Your task to perform on an android device: stop showing notifications on the lock screen Image 0: 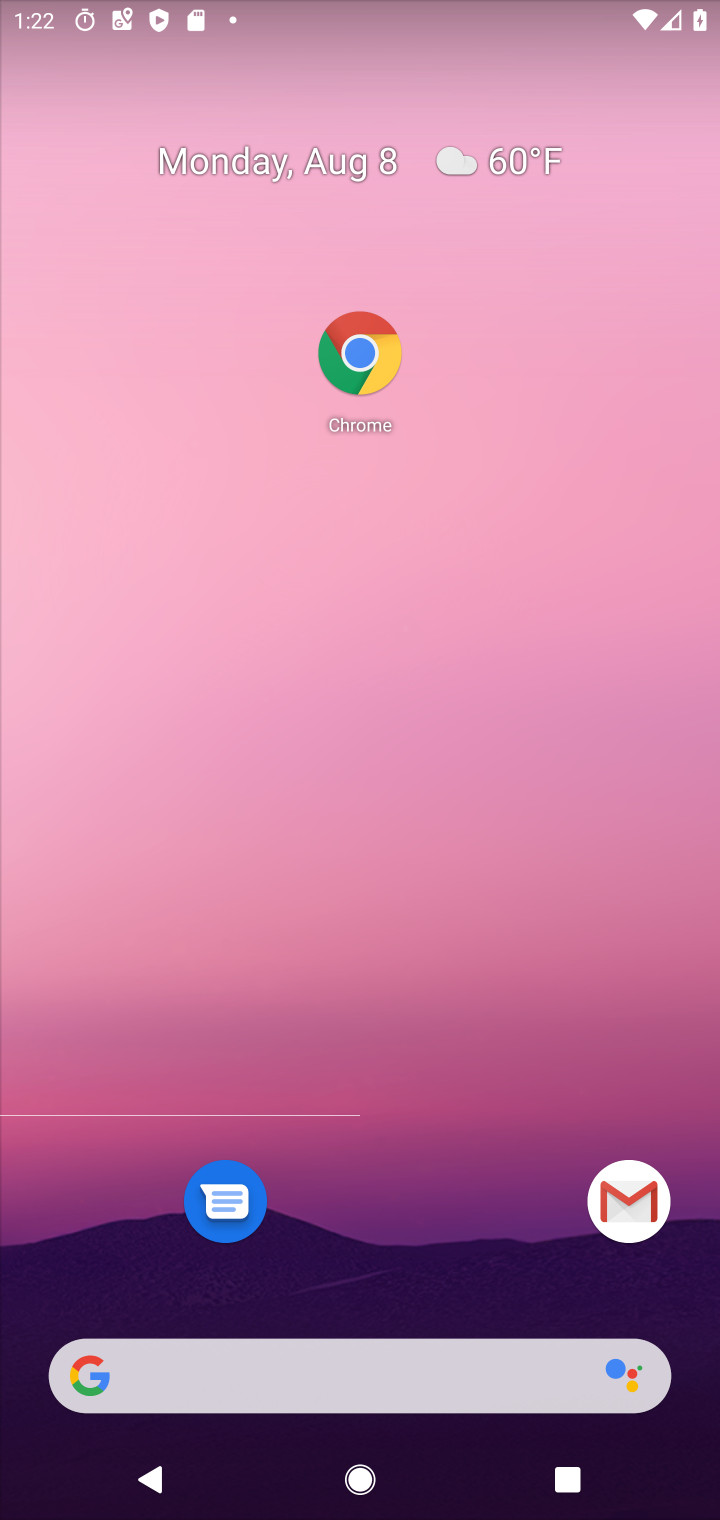
Step 0: press home button
Your task to perform on an android device: stop showing notifications on the lock screen Image 1: 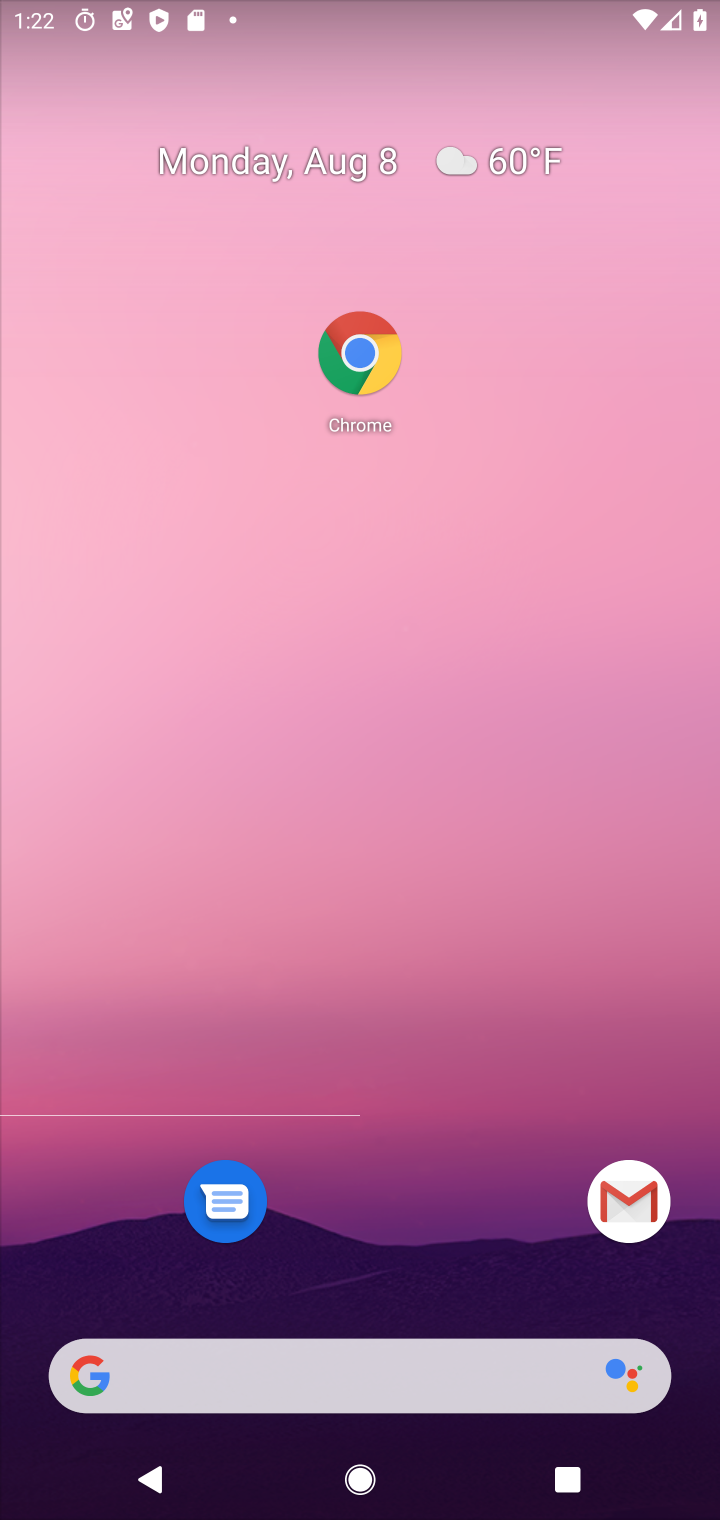
Step 1: drag from (399, 1432) to (229, 313)
Your task to perform on an android device: stop showing notifications on the lock screen Image 2: 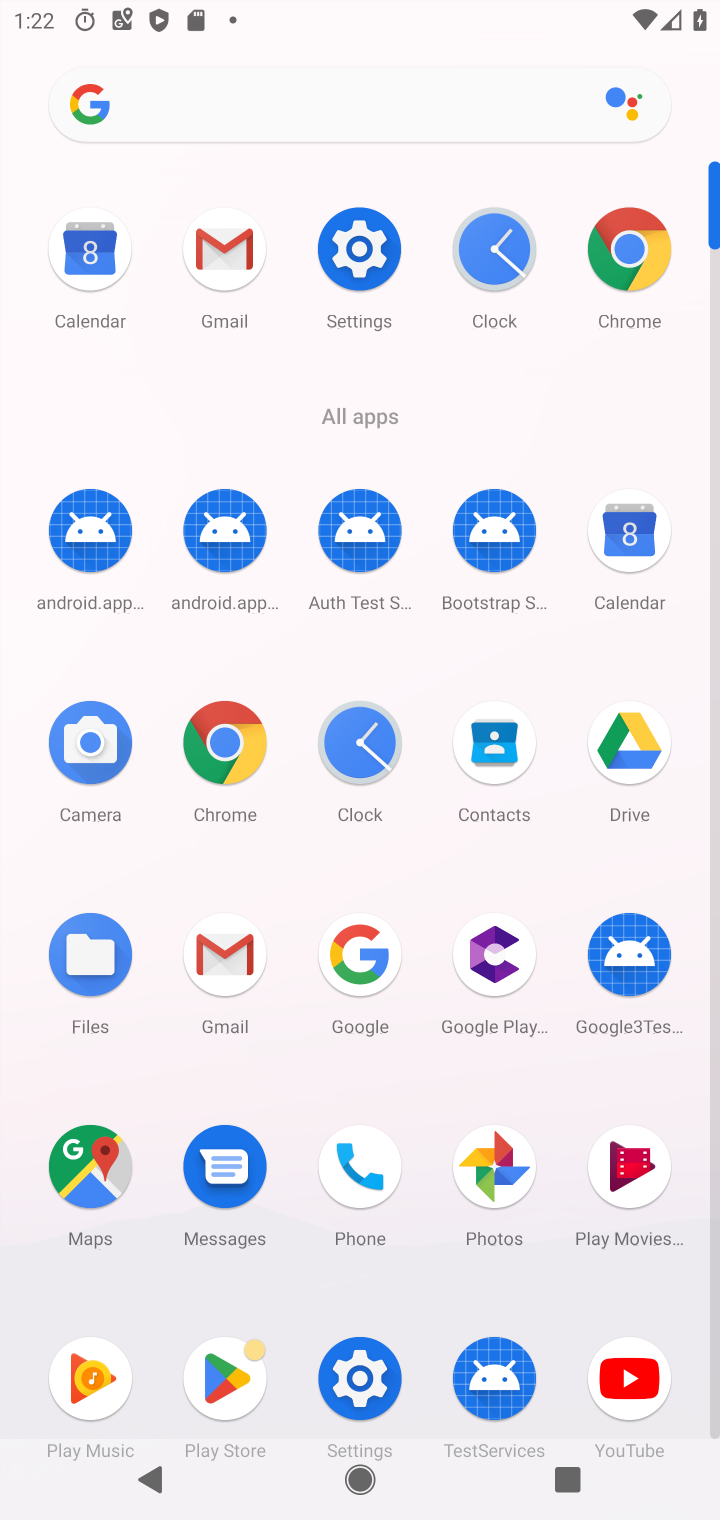
Step 2: click (347, 227)
Your task to perform on an android device: stop showing notifications on the lock screen Image 3: 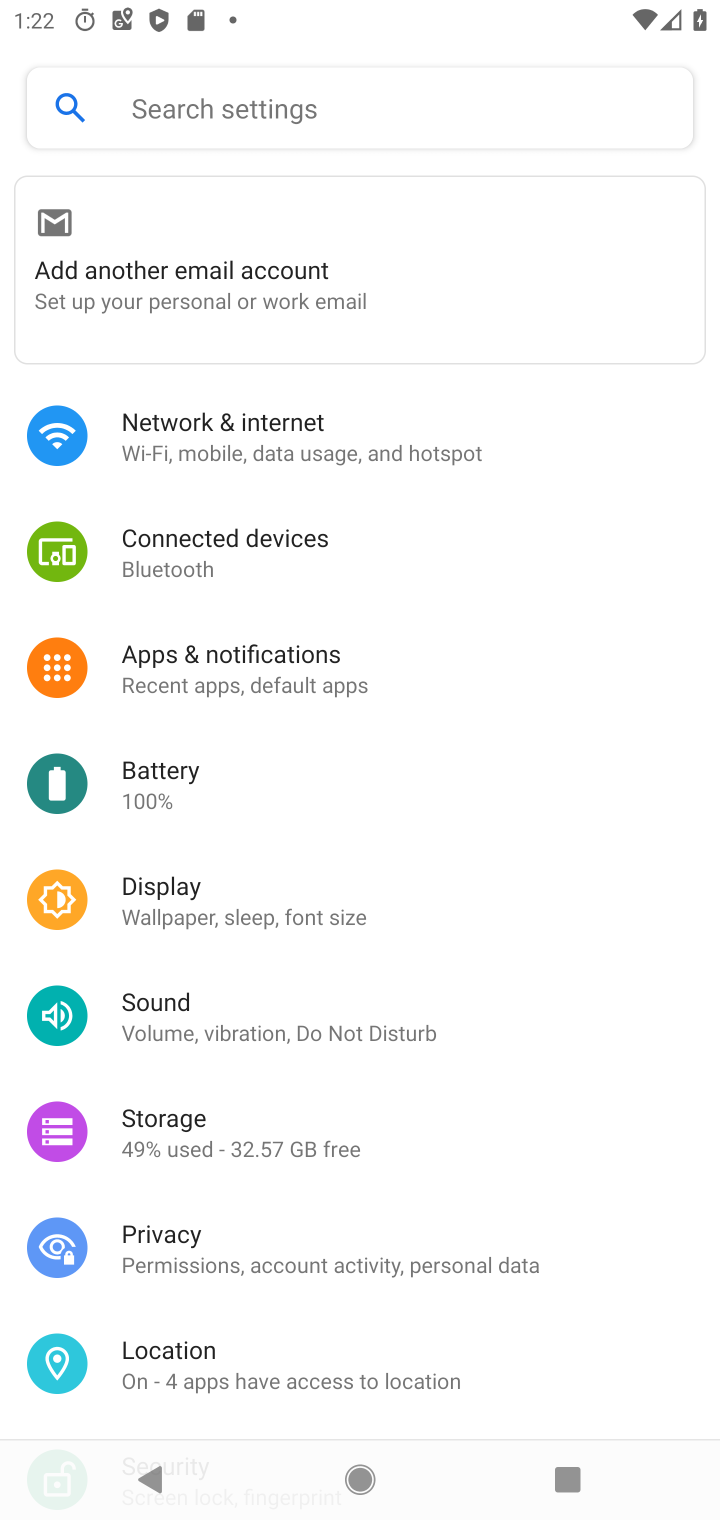
Step 3: click (203, 98)
Your task to perform on an android device: stop showing notifications on the lock screen Image 4: 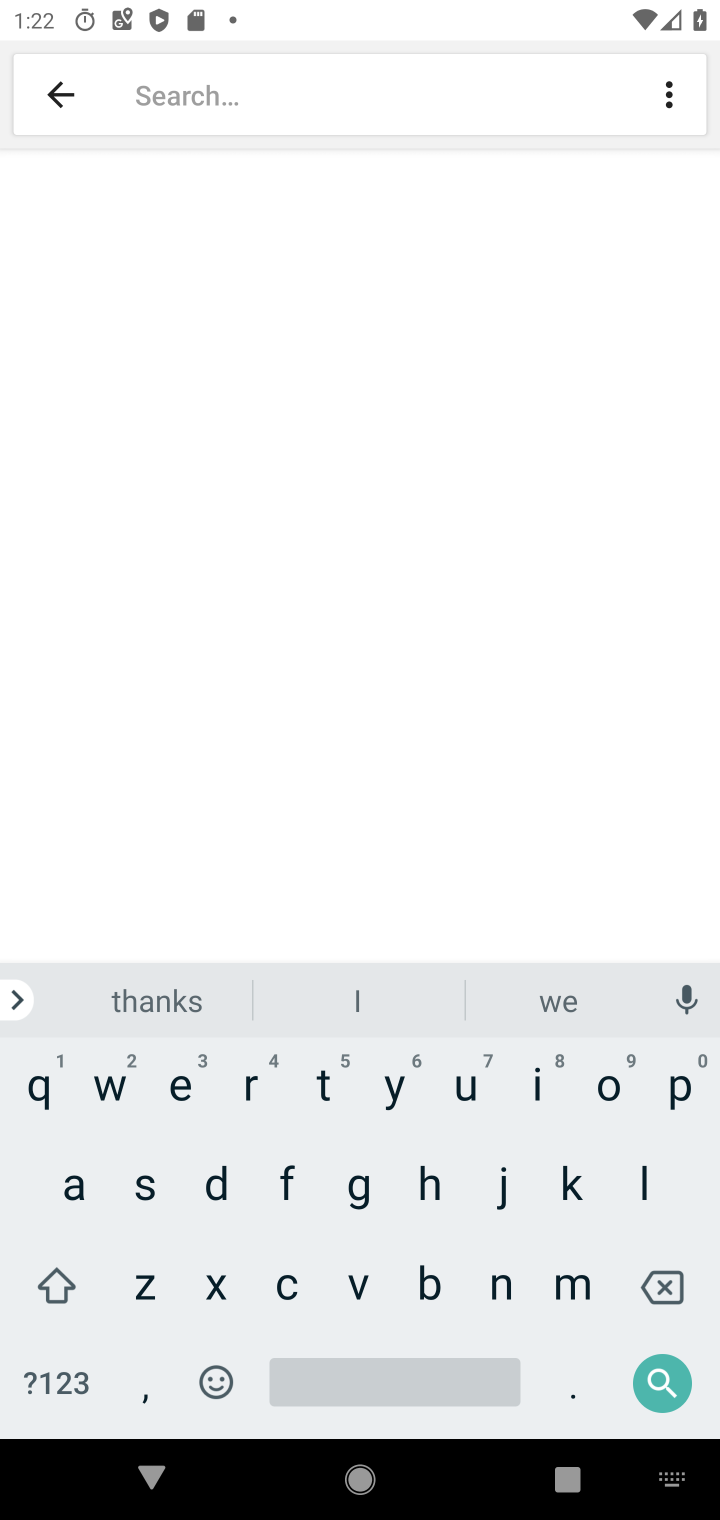
Step 4: click (487, 1288)
Your task to perform on an android device: stop showing notifications on the lock screen Image 5: 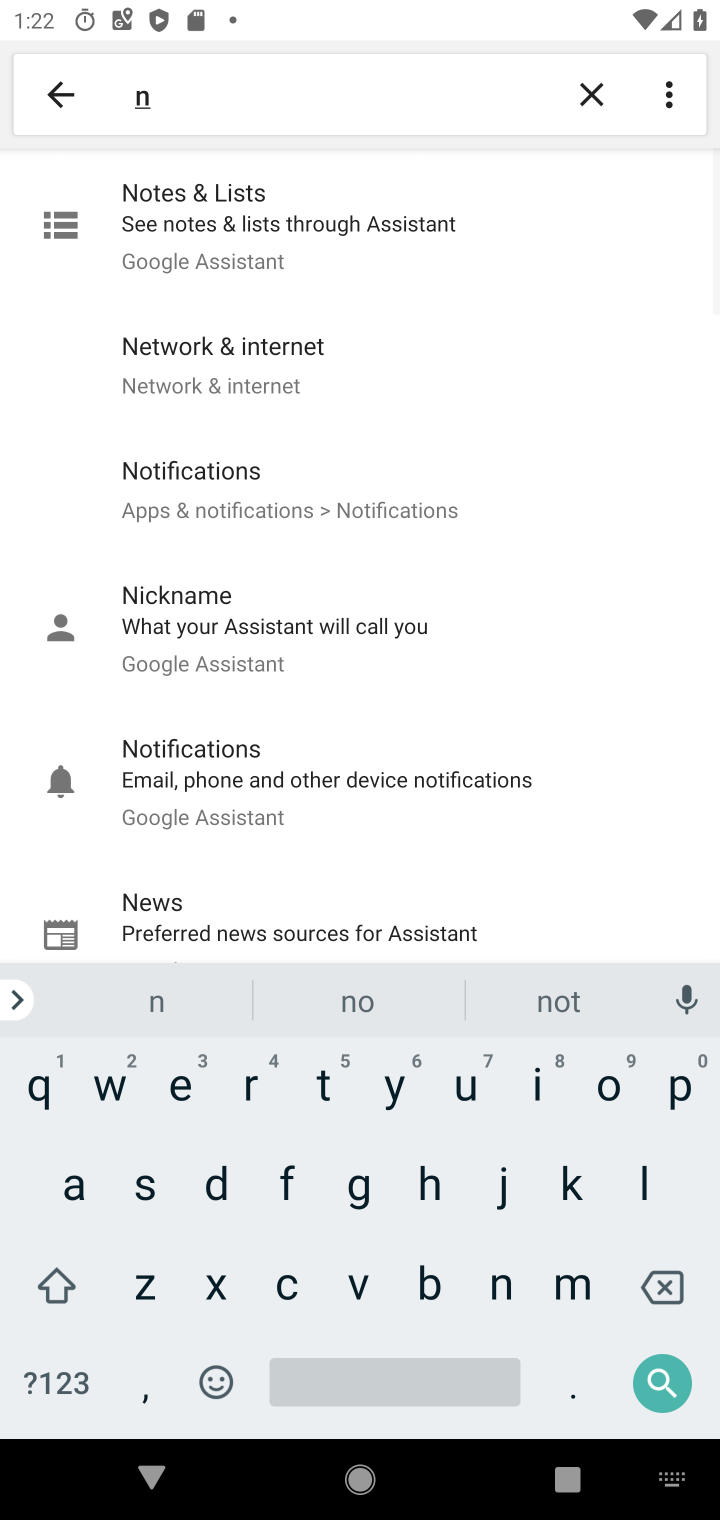
Step 5: click (607, 1091)
Your task to perform on an android device: stop showing notifications on the lock screen Image 6: 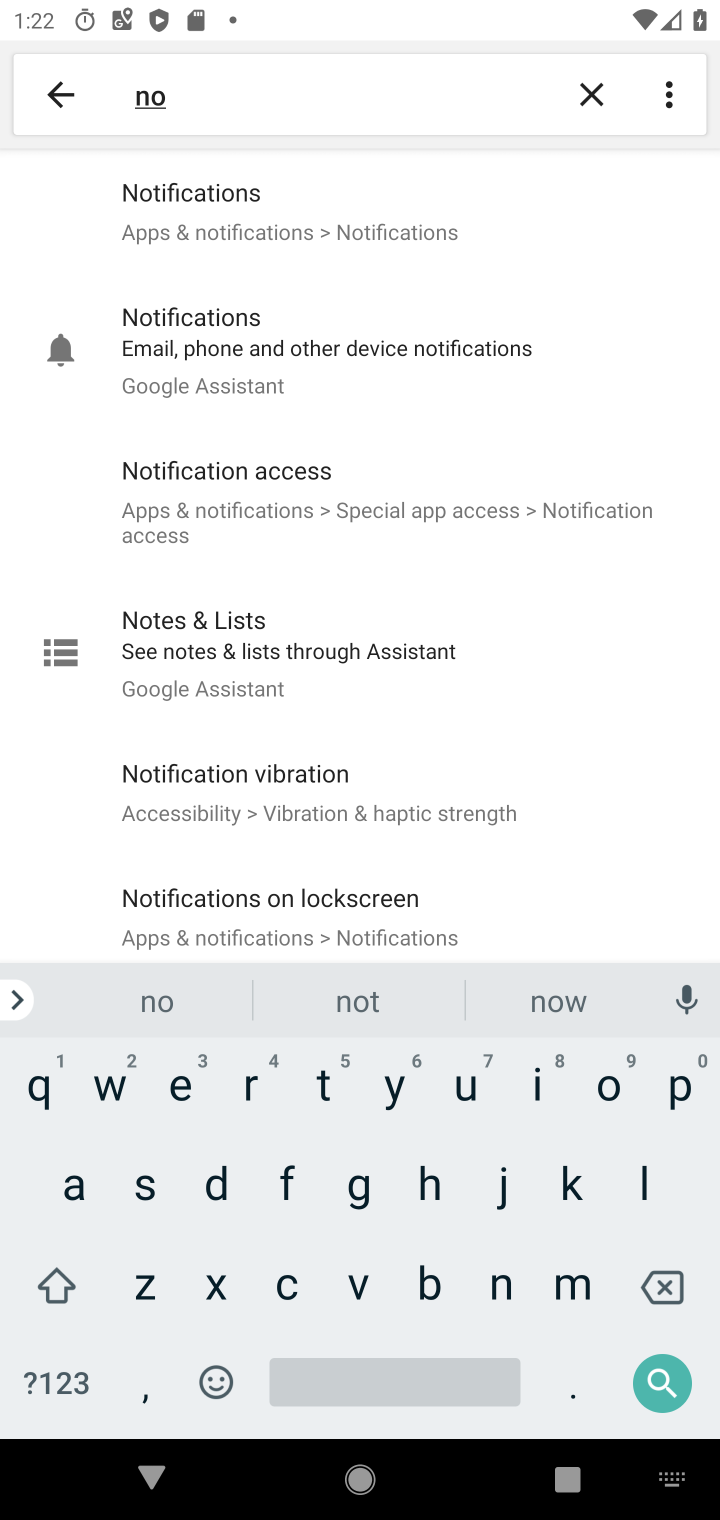
Step 6: click (265, 223)
Your task to perform on an android device: stop showing notifications on the lock screen Image 7: 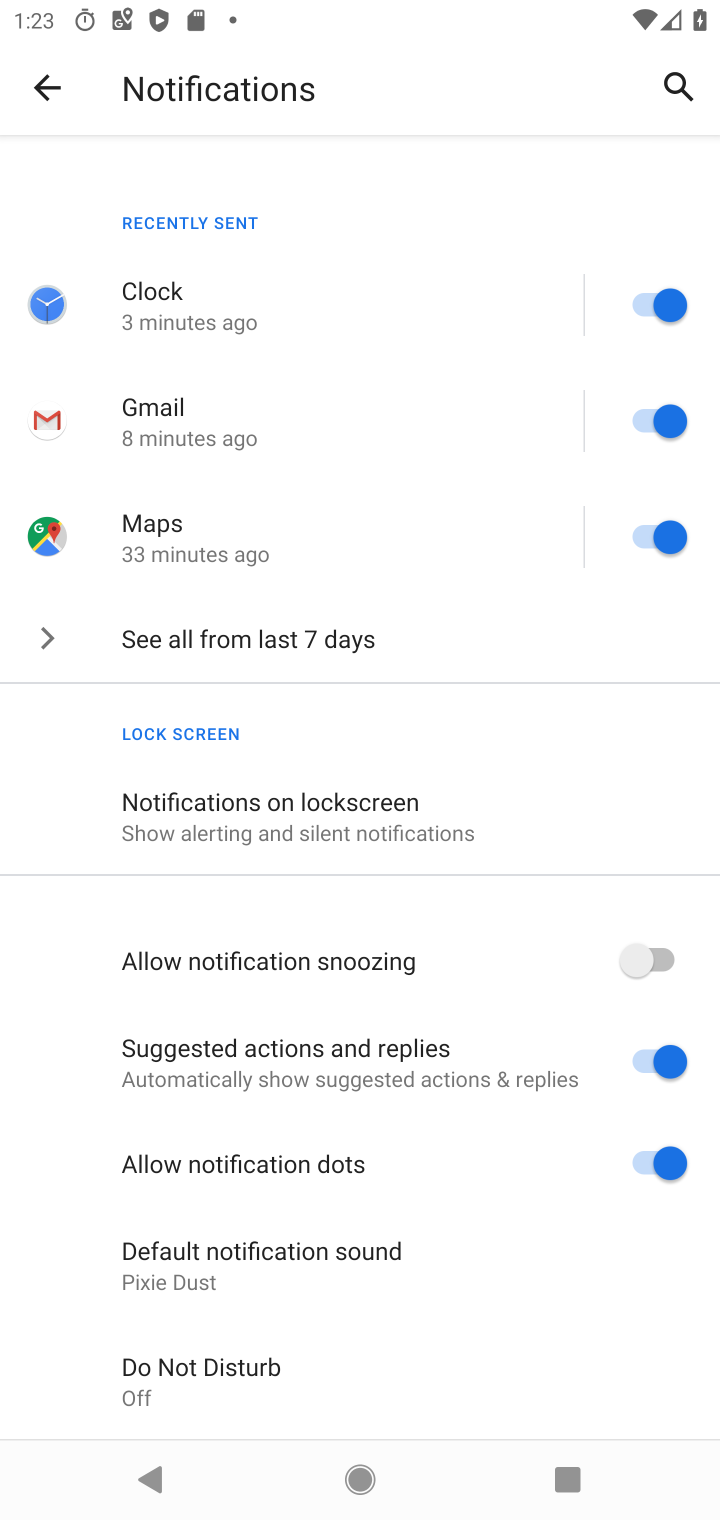
Step 7: click (211, 816)
Your task to perform on an android device: stop showing notifications on the lock screen Image 8: 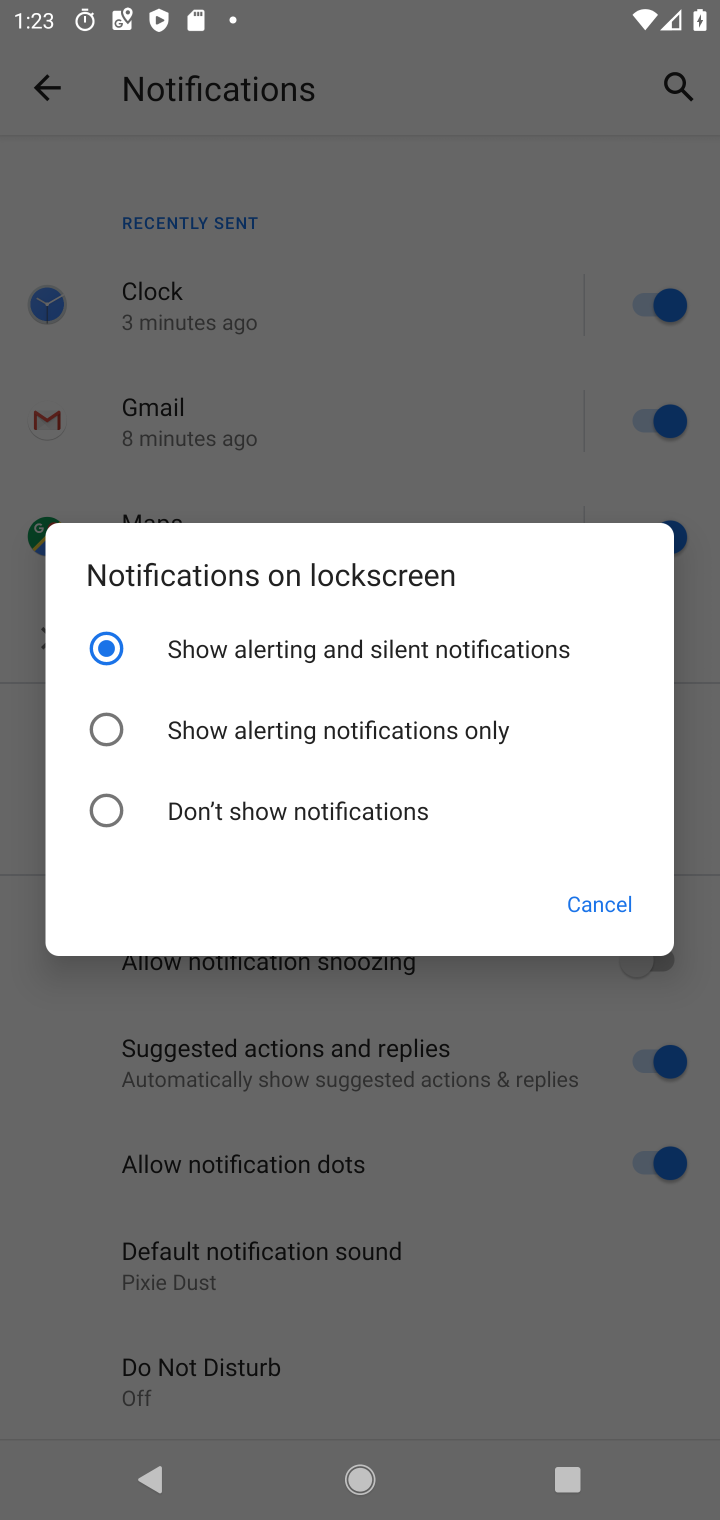
Step 8: click (219, 803)
Your task to perform on an android device: stop showing notifications on the lock screen Image 9: 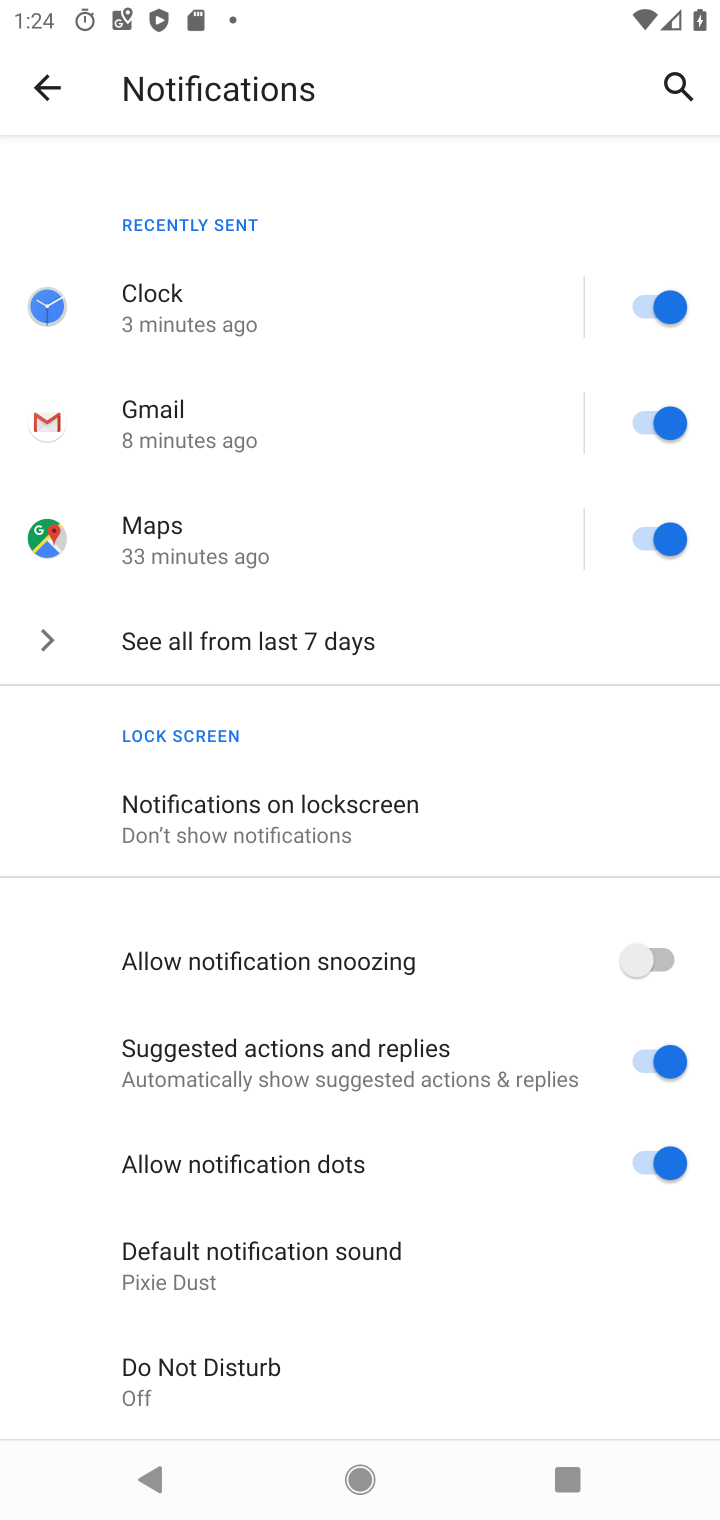
Step 9: task complete